Your task to perform on an android device: turn off picture-in-picture Image 0: 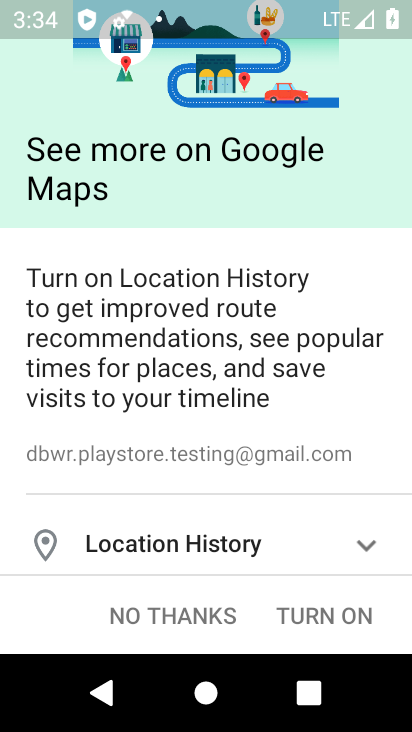
Step 0: press home button
Your task to perform on an android device: turn off picture-in-picture Image 1: 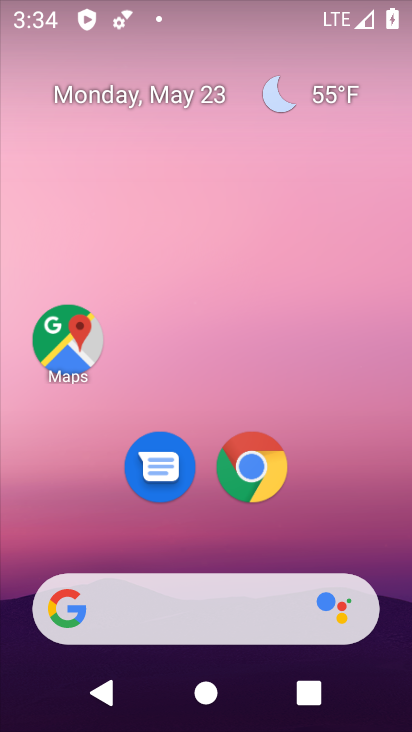
Step 1: drag from (221, 414) to (257, 207)
Your task to perform on an android device: turn off picture-in-picture Image 2: 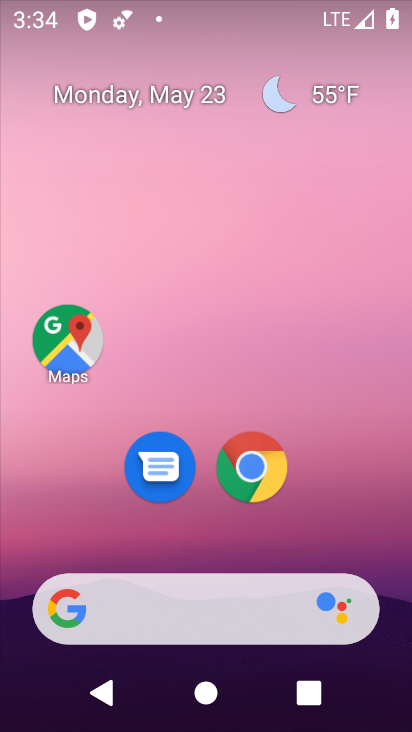
Step 2: drag from (220, 579) to (301, 274)
Your task to perform on an android device: turn off picture-in-picture Image 3: 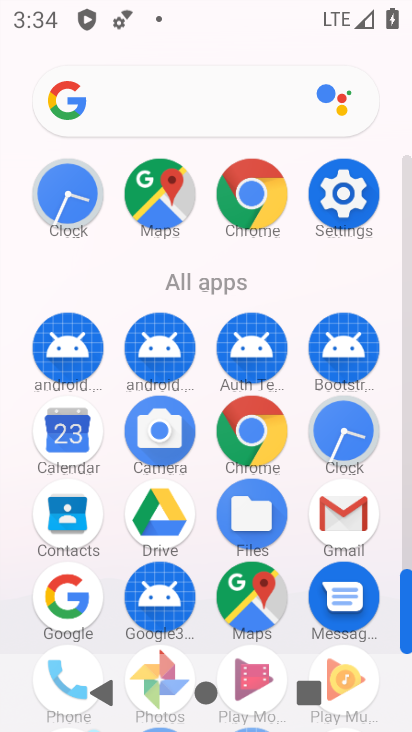
Step 3: click (338, 205)
Your task to perform on an android device: turn off picture-in-picture Image 4: 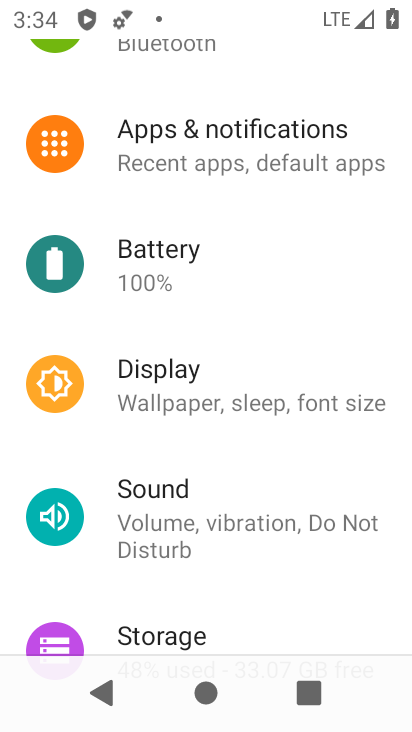
Step 4: click (230, 164)
Your task to perform on an android device: turn off picture-in-picture Image 5: 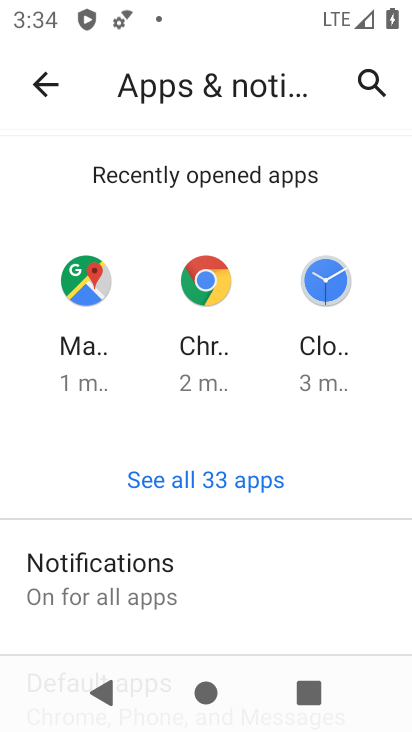
Step 5: drag from (137, 643) to (207, 347)
Your task to perform on an android device: turn off picture-in-picture Image 6: 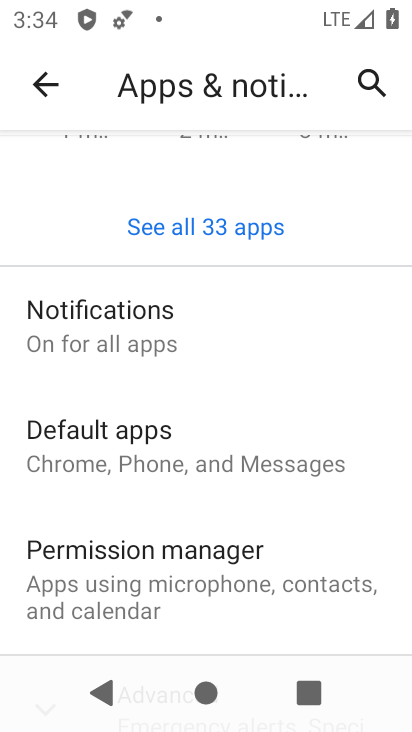
Step 6: drag from (181, 592) to (233, 336)
Your task to perform on an android device: turn off picture-in-picture Image 7: 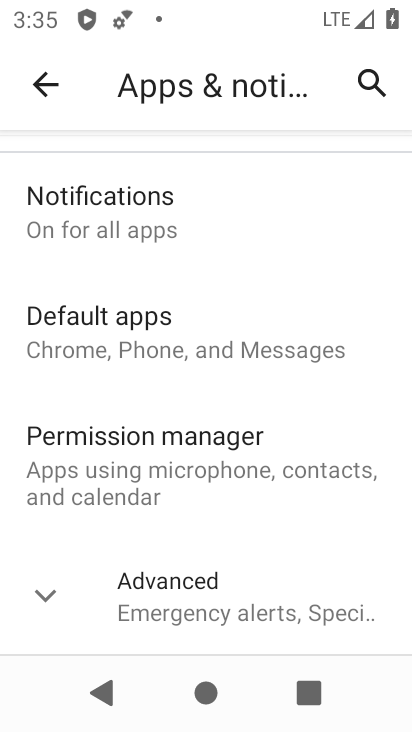
Step 7: click (48, 583)
Your task to perform on an android device: turn off picture-in-picture Image 8: 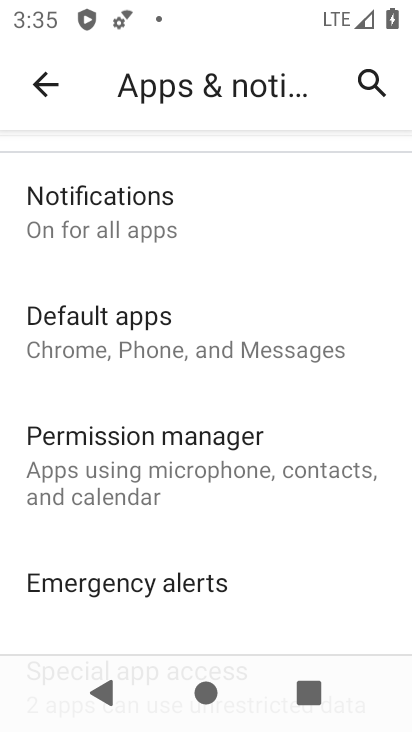
Step 8: drag from (151, 582) to (207, 322)
Your task to perform on an android device: turn off picture-in-picture Image 9: 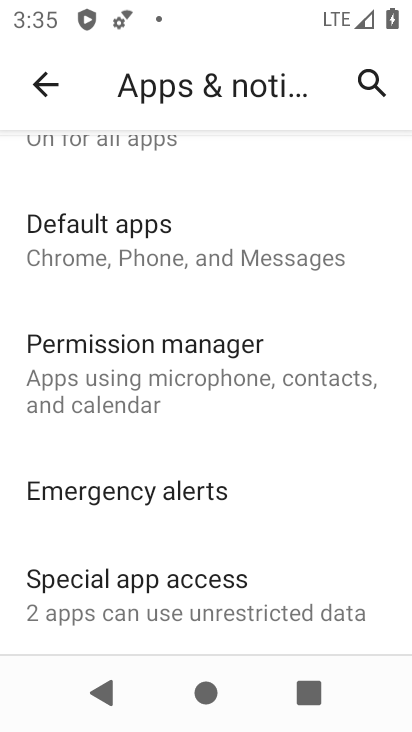
Step 9: click (156, 594)
Your task to perform on an android device: turn off picture-in-picture Image 10: 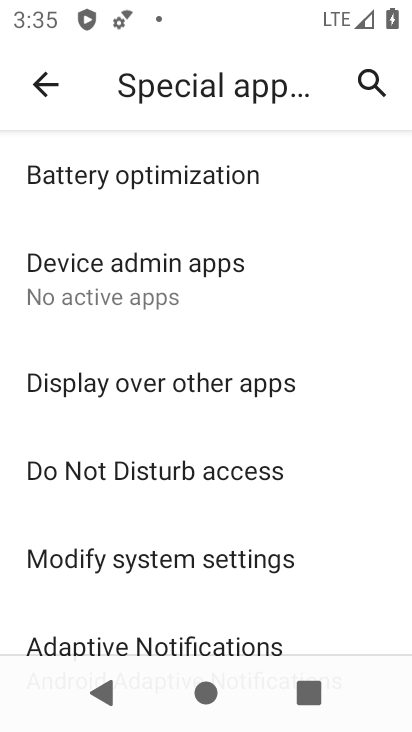
Step 10: drag from (165, 603) to (251, 320)
Your task to perform on an android device: turn off picture-in-picture Image 11: 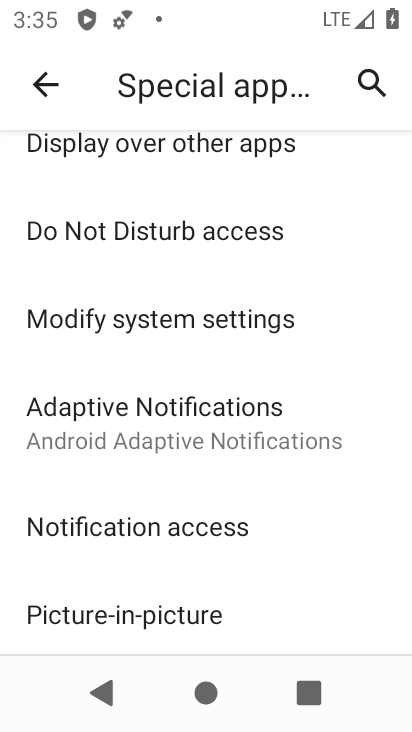
Step 11: drag from (206, 551) to (290, 336)
Your task to perform on an android device: turn off picture-in-picture Image 12: 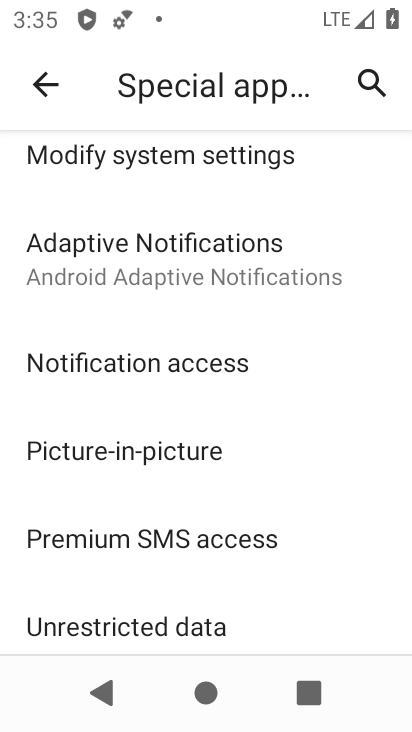
Step 12: click (195, 463)
Your task to perform on an android device: turn off picture-in-picture Image 13: 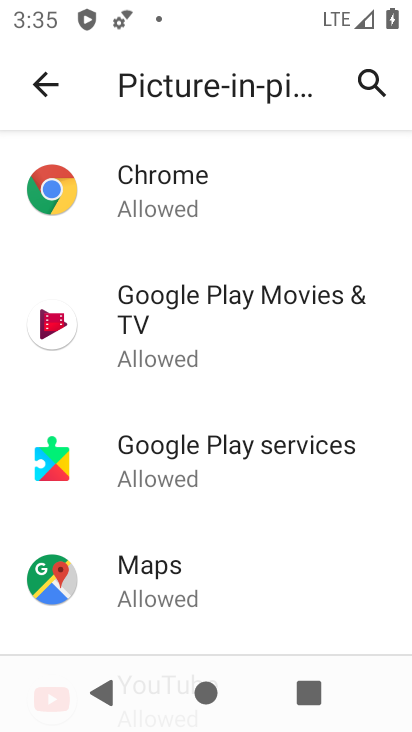
Step 13: task complete